Your task to perform on an android device: Go to Reddit.com Image 0: 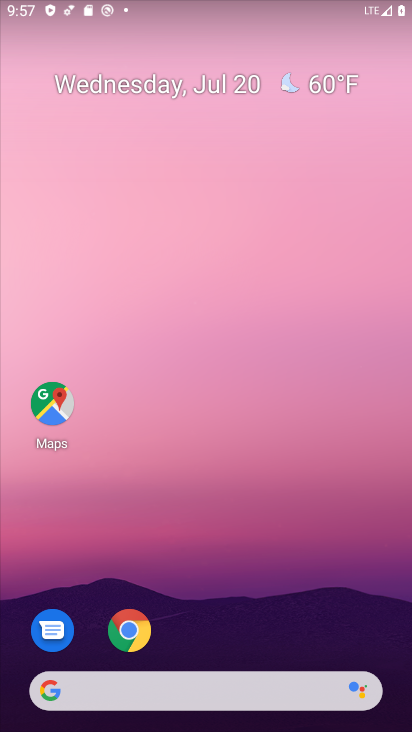
Step 0: click (113, 627)
Your task to perform on an android device: Go to Reddit.com Image 1: 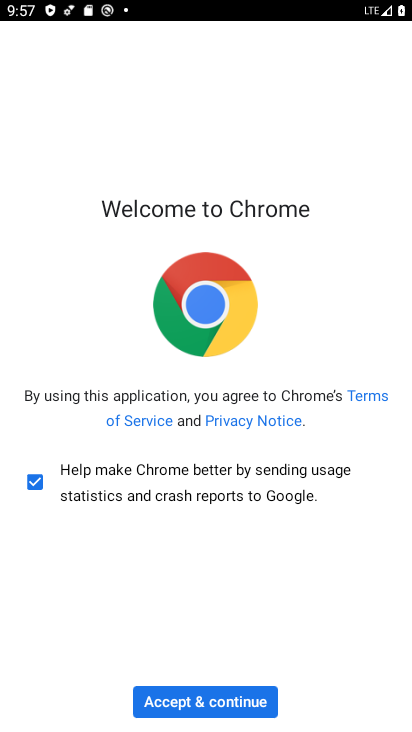
Step 1: click (228, 700)
Your task to perform on an android device: Go to Reddit.com Image 2: 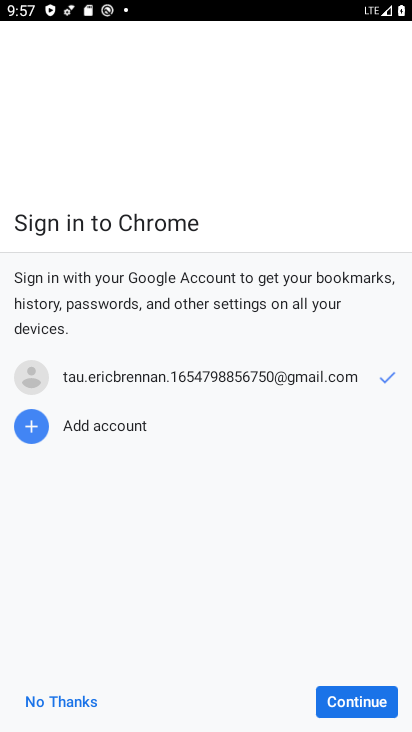
Step 2: click (330, 708)
Your task to perform on an android device: Go to Reddit.com Image 3: 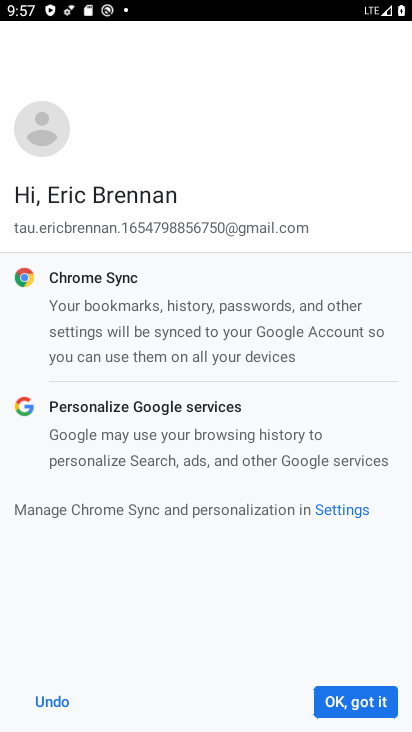
Step 3: click (330, 708)
Your task to perform on an android device: Go to Reddit.com Image 4: 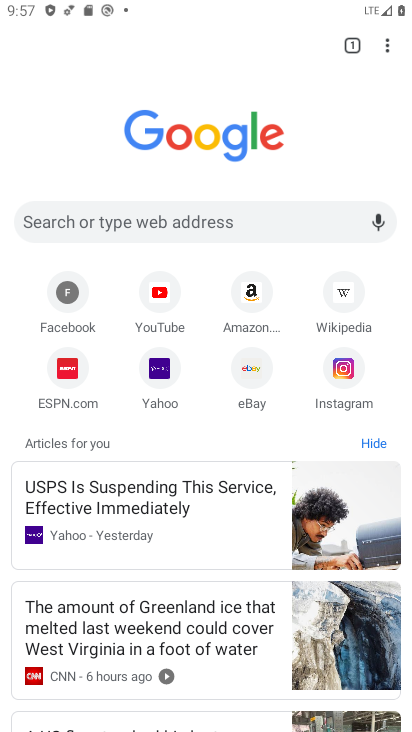
Step 4: click (174, 209)
Your task to perform on an android device: Go to Reddit.com Image 5: 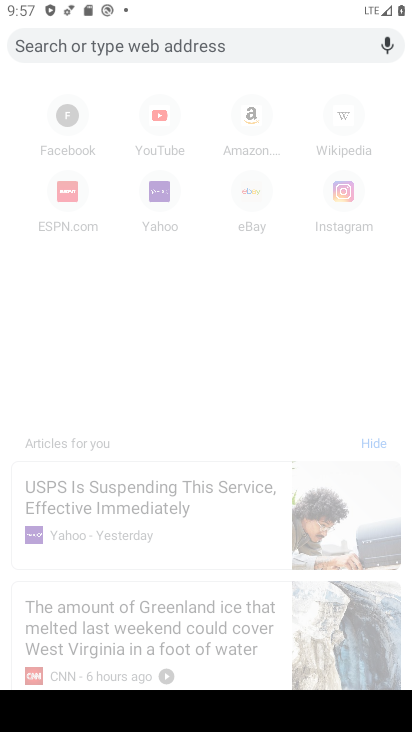
Step 5: type "Reddit.com"
Your task to perform on an android device: Go to Reddit.com Image 6: 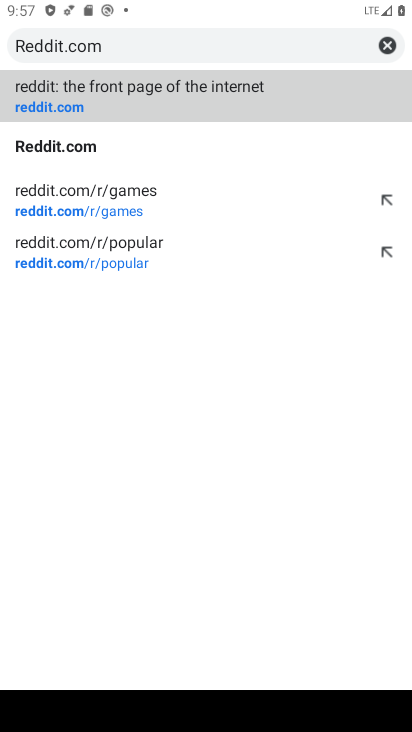
Step 6: click (310, 96)
Your task to perform on an android device: Go to Reddit.com Image 7: 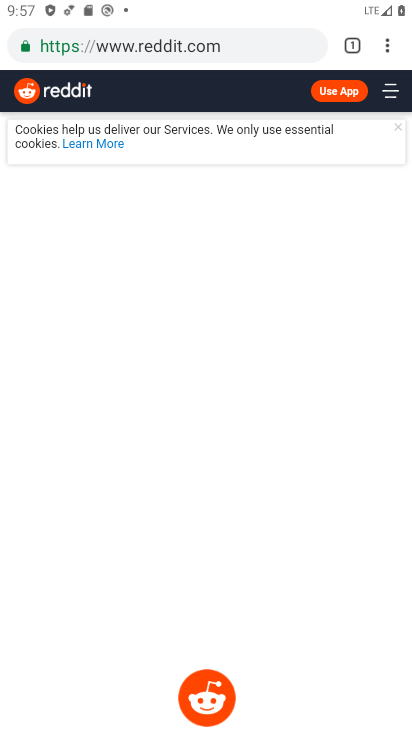
Step 7: task complete